Your task to perform on an android device: turn off javascript in the chrome app Image 0: 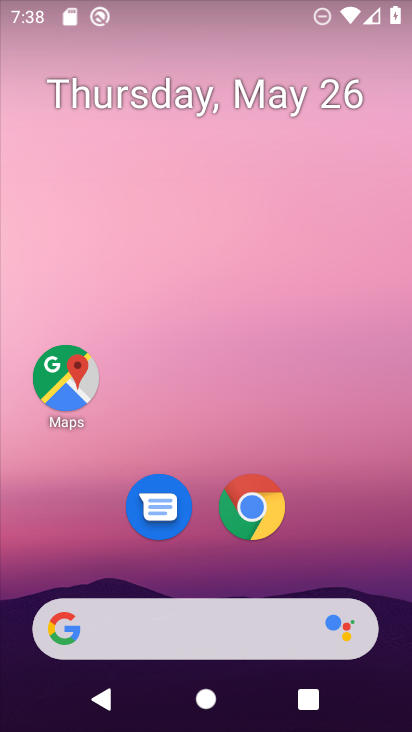
Step 0: click (183, 167)
Your task to perform on an android device: turn off javascript in the chrome app Image 1: 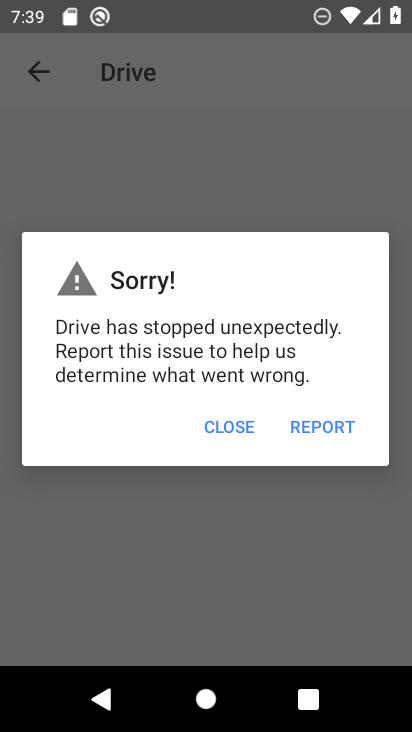
Step 1: press home button
Your task to perform on an android device: turn off javascript in the chrome app Image 2: 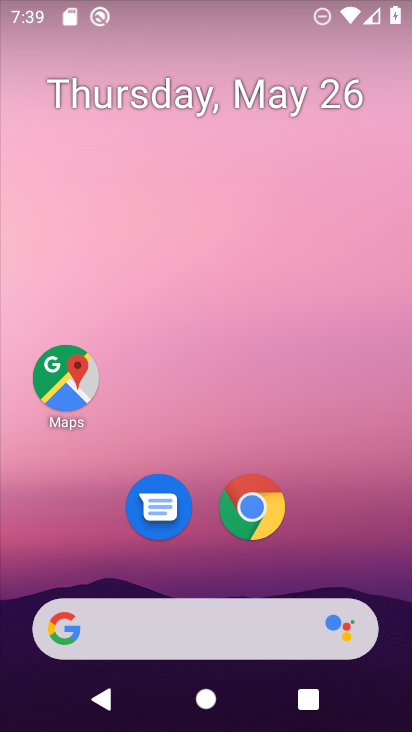
Step 2: drag from (263, 564) to (235, 36)
Your task to perform on an android device: turn off javascript in the chrome app Image 3: 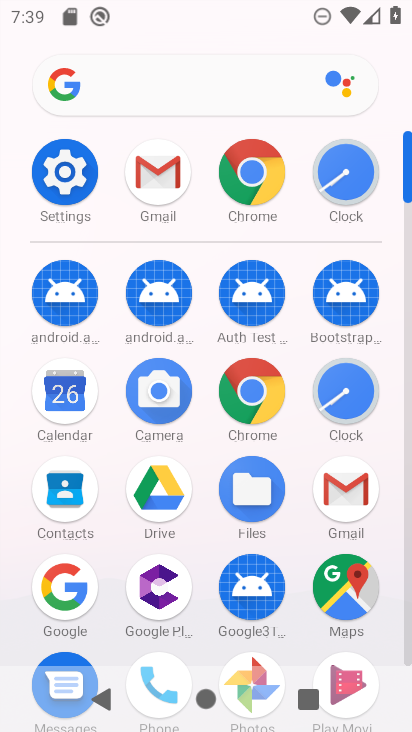
Step 3: click (251, 170)
Your task to perform on an android device: turn off javascript in the chrome app Image 4: 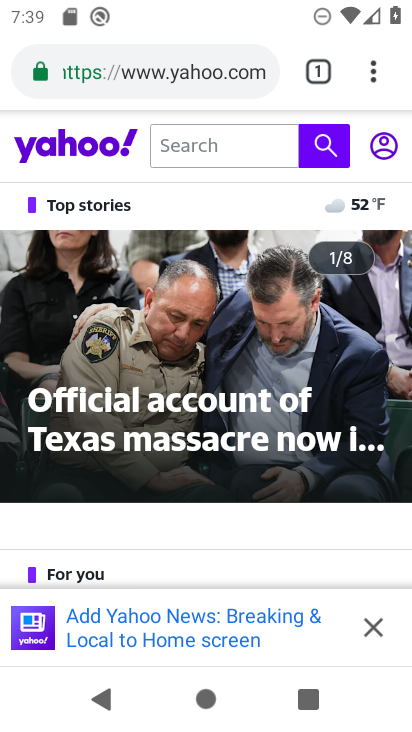
Step 4: click (370, 81)
Your task to perform on an android device: turn off javascript in the chrome app Image 5: 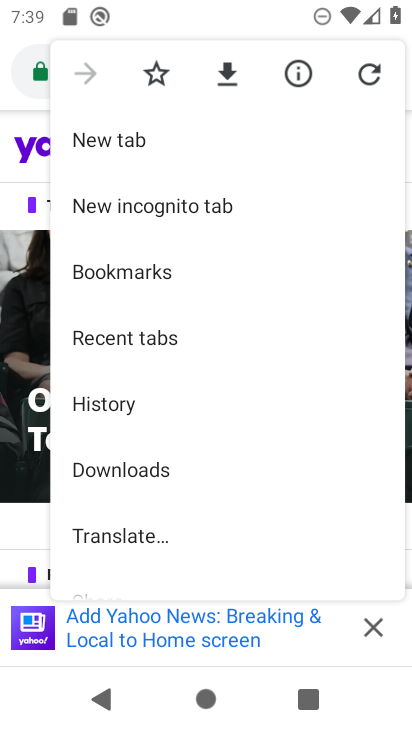
Step 5: drag from (126, 507) to (120, 167)
Your task to perform on an android device: turn off javascript in the chrome app Image 6: 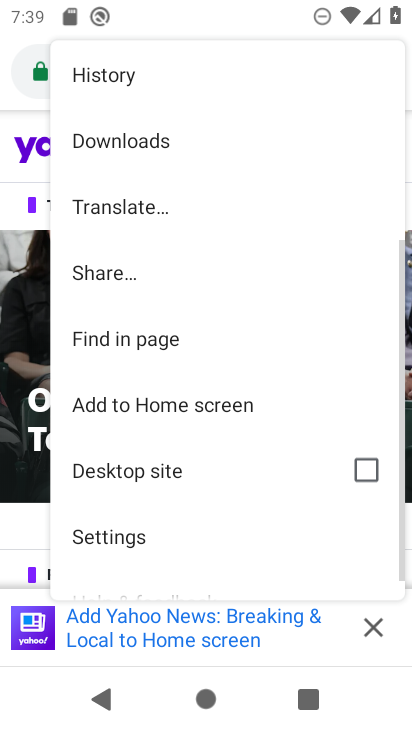
Step 6: click (132, 544)
Your task to perform on an android device: turn off javascript in the chrome app Image 7: 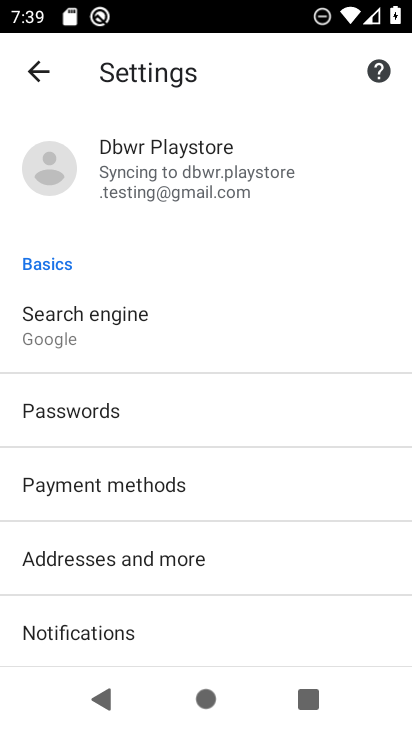
Step 7: drag from (140, 595) to (95, 134)
Your task to perform on an android device: turn off javascript in the chrome app Image 8: 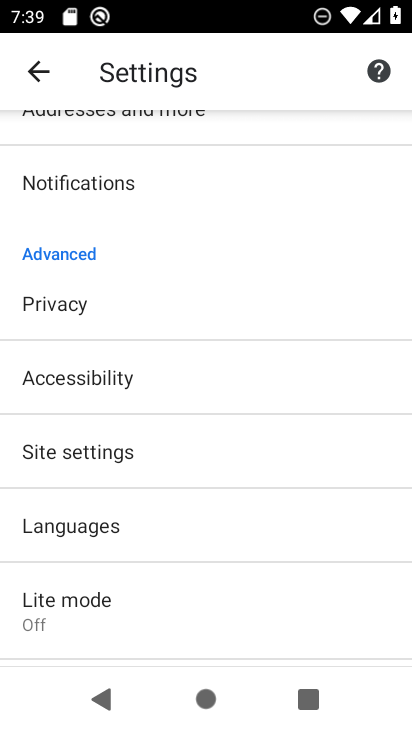
Step 8: click (98, 461)
Your task to perform on an android device: turn off javascript in the chrome app Image 9: 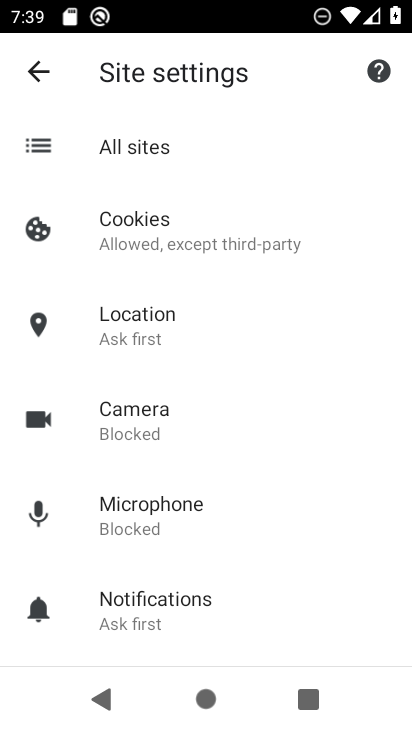
Step 9: drag from (178, 597) to (189, 260)
Your task to perform on an android device: turn off javascript in the chrome app Image 10: 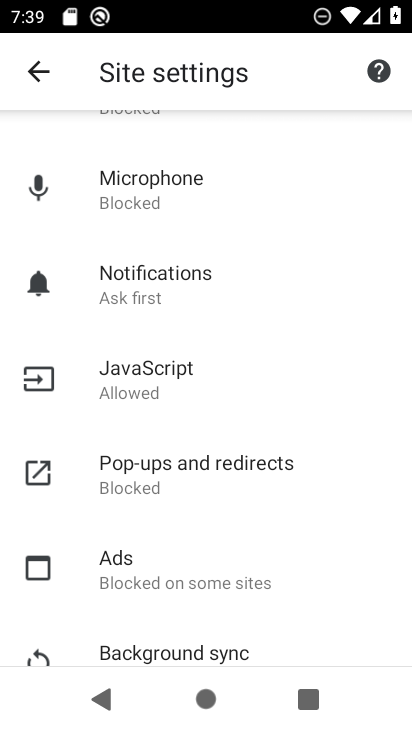
Step 10: click (145, 369)
Your task to perform on an android device: turn off javascript in the chrome app Image 11: 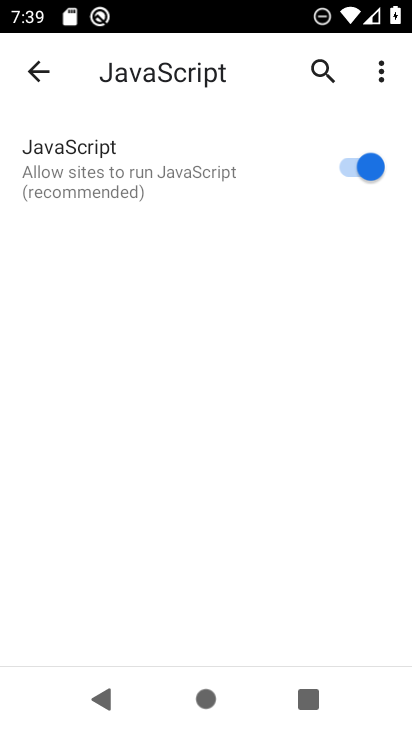
Step 11: click (335, 160)
Your task to perform on an android device: turn off javascript in the chrome app Image 12: 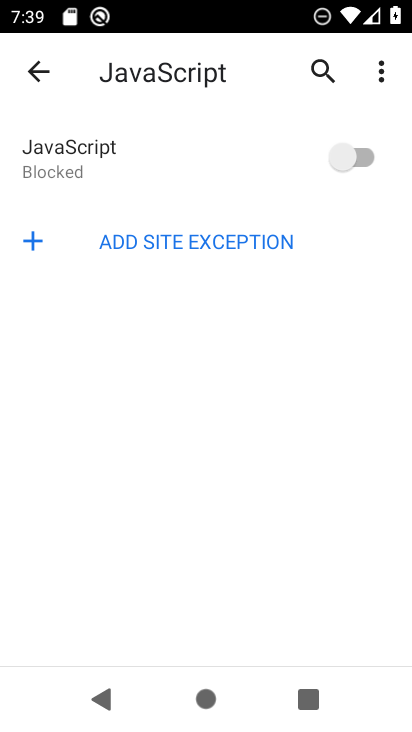
Step 12: task complete